Your task to perform on an android device: Go to ESPN.com Image 0: 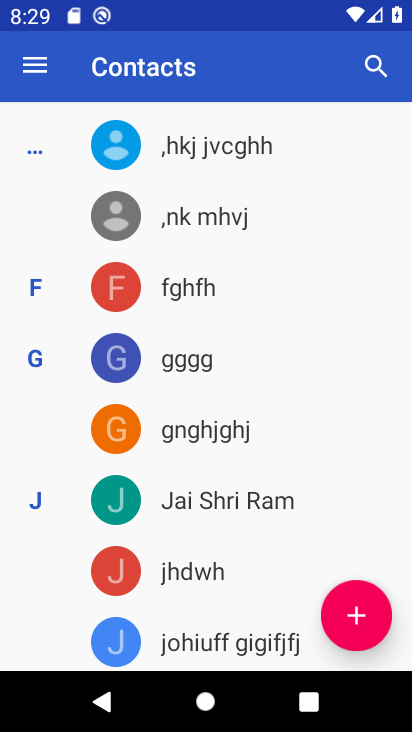
Step 0: press home button
Your task to perform on an android device: Go to ESPN.com Image 1: 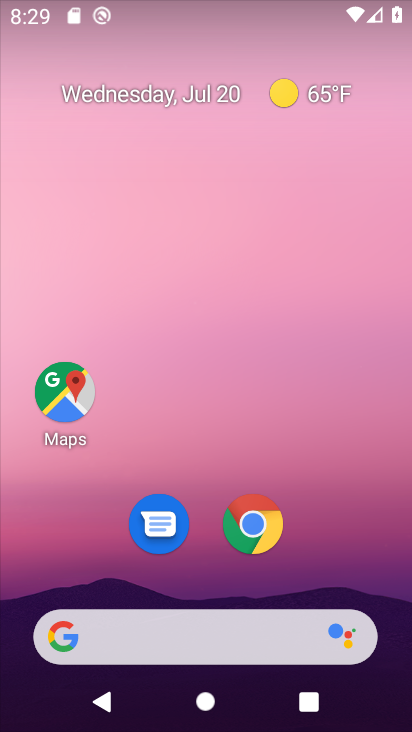
Step 1: click (237, 641)
Your task to perform on an android device: Go to ESPN.com Image 2: 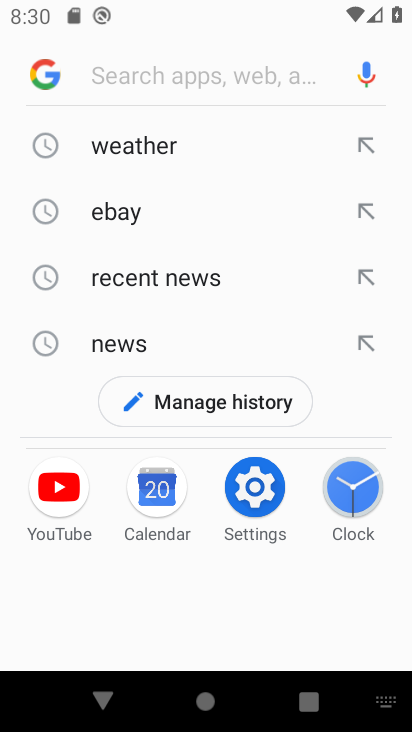
Step 2: type "espn.com"
Your task to perform on an android device: Go to ESPN.com Image 3: 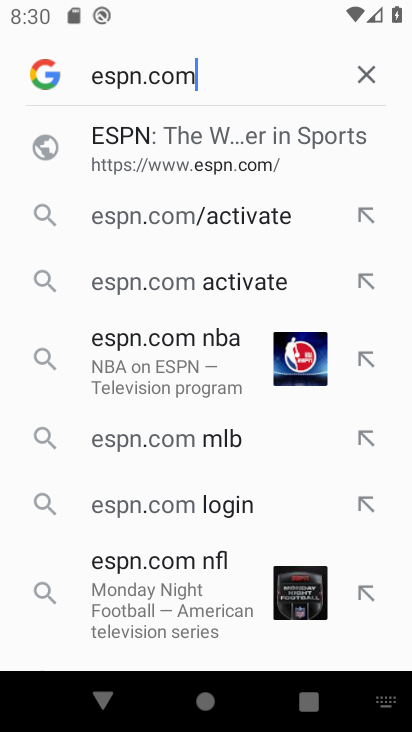
Step 3: click (209, 151)
Your task to perform on an android device: Go to ESPN.com Image 4: 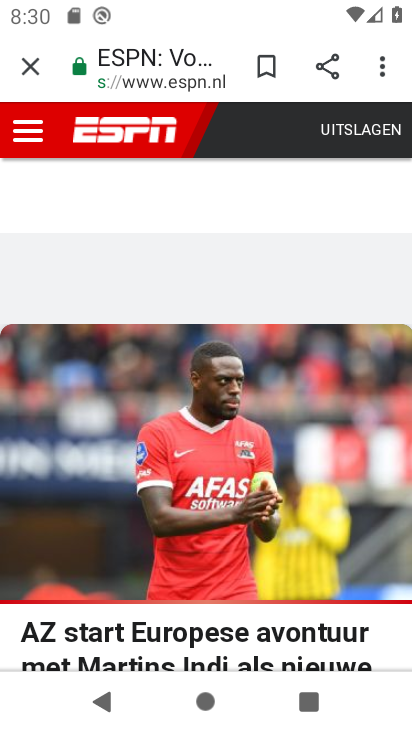
Step 4: task complete